Your task to perform on an android device: Go to Reddit.com Image 0: 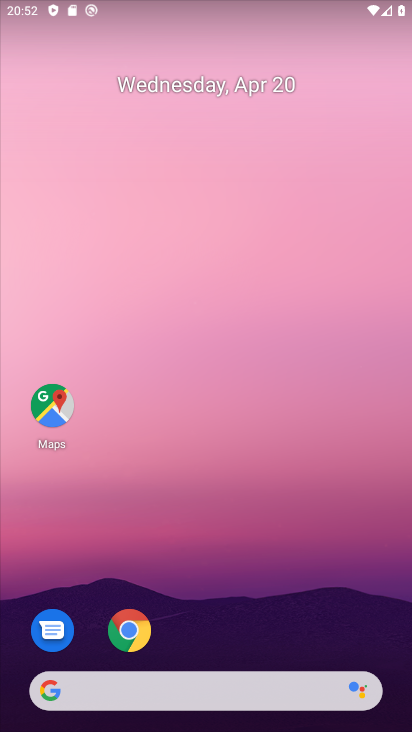
Step 0: click (128, 625)
Your task to perform on an android device: Go to Reddit.com Image 1: 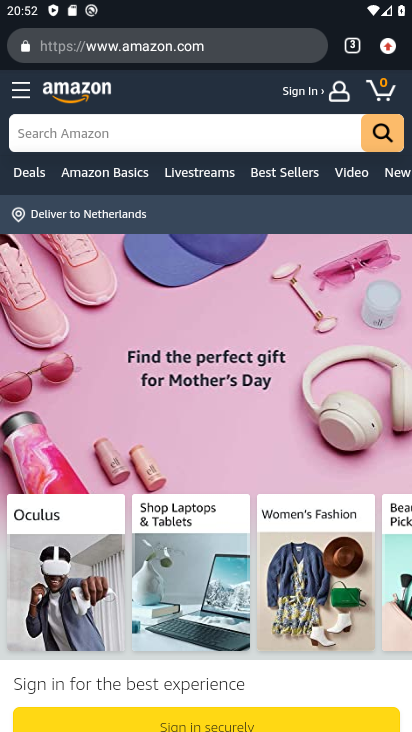
Step 1: click (347, 47)
Your task to perform on an android device: Go to Reddit.com Image 2: 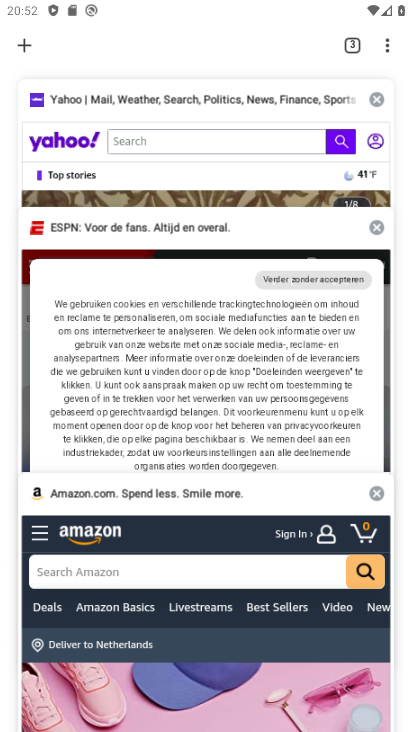
Step 2: click (28, 47)
Your task to perform on an android device: Go to Reddit.com Image 3: 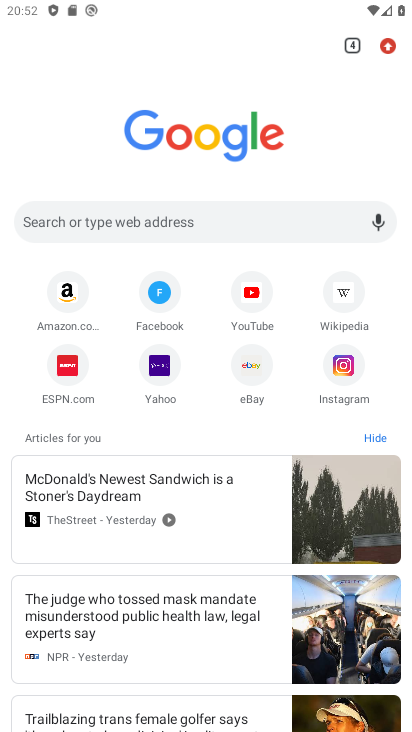
Step 3: click (239, 222)
Your task to perform on an android device: Go to Reddit.com Image 4: 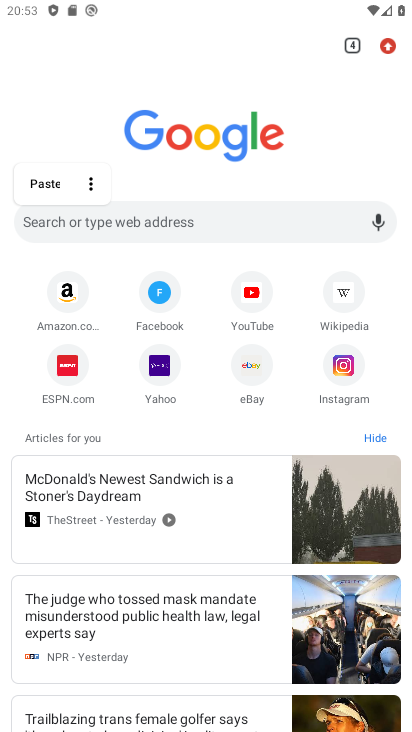
Step 4: click (130, 214)
Your task to perform on an android device: Go to Reddit.com Image 5: 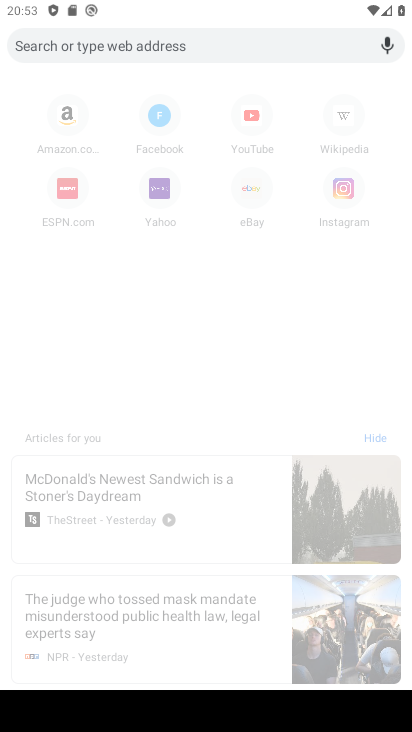
Step 5: type "Reddit.com"
Your task to perform on an android device: Go to Reddit.com Image 6: 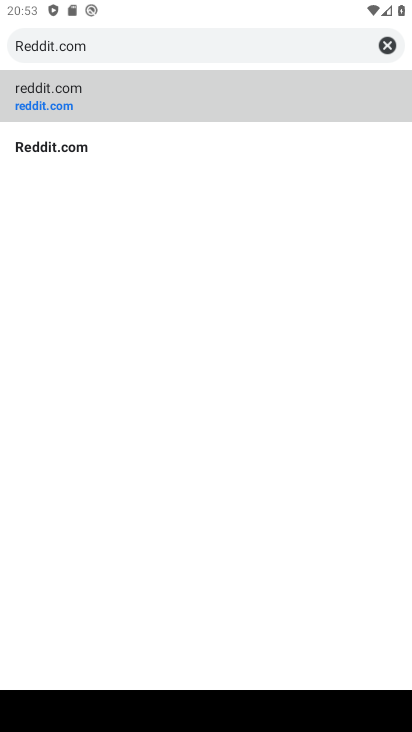
Step 6: click (37, 114)
Your task to perform on an android device: Go to Reddit.com Image 7: 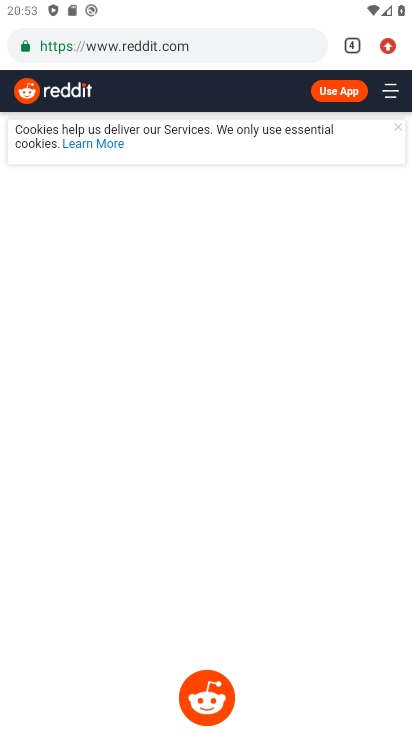
Step 7: task complete